Your task to perform on an android device: turn notification dots on Image 0: 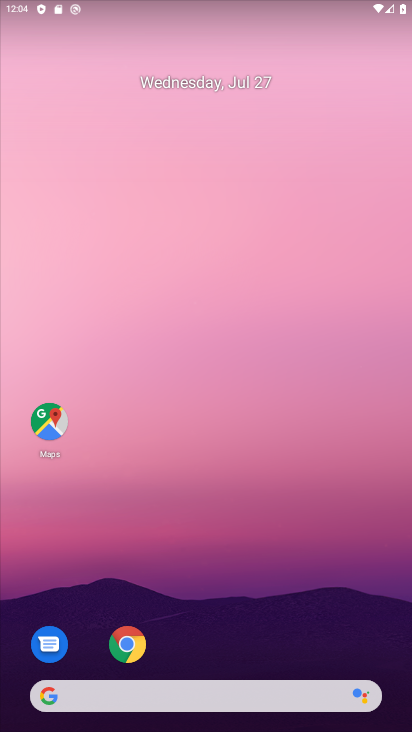
Step 0: press home button
Your task to perform on an android device: turn notification dots on Image 1: 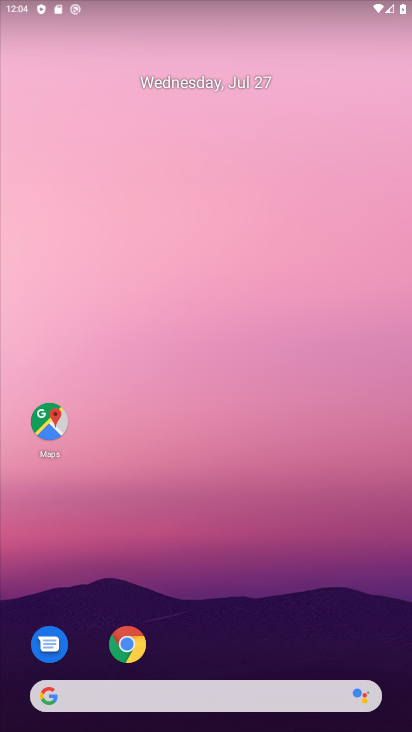
Step 1: drag from (181, 520) to (195, 36)
Your task to perform on an android device: turn notification dots on Image 2: 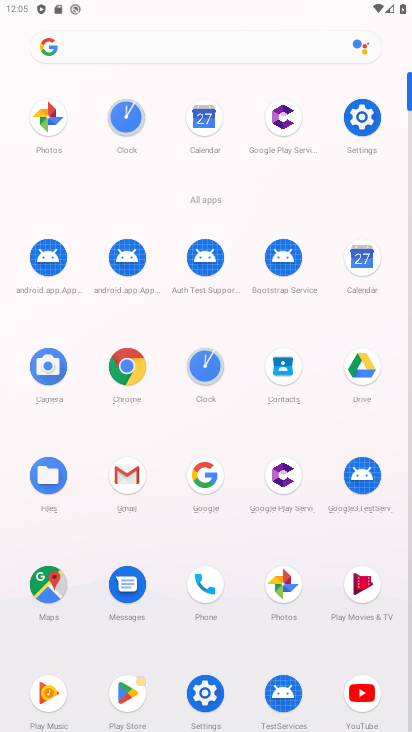
Step 2: click (207, 671)
Your task to perform on an android device: turn notification dots on Image 3: 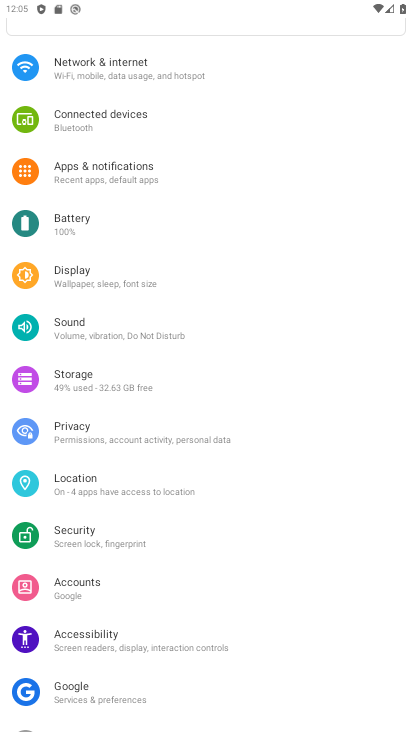
Step 3: drag from (247, 566) to (411, 124)
Your task to perform on an android device: turn notification dots on Image 4: 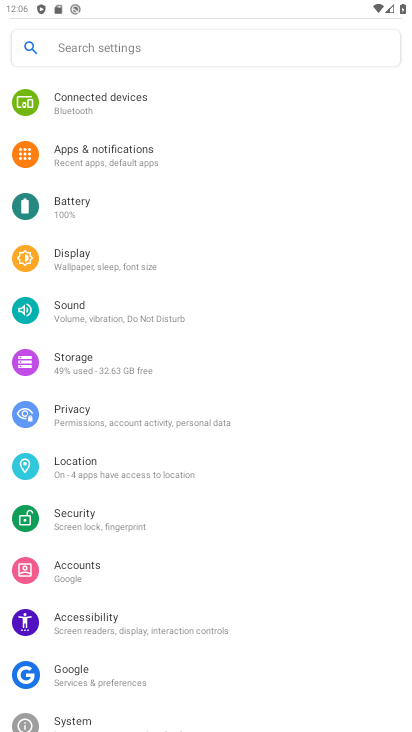
Step 4: click (112, 166)
Your task to perform on an android device: turn notification dots on Image 5: 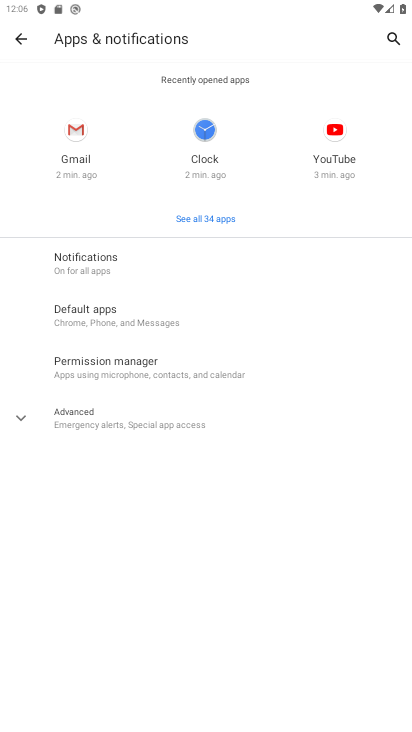
Step 5: click (105, 270)
Your task to perform on an android device: turn notification dots on Image 6: 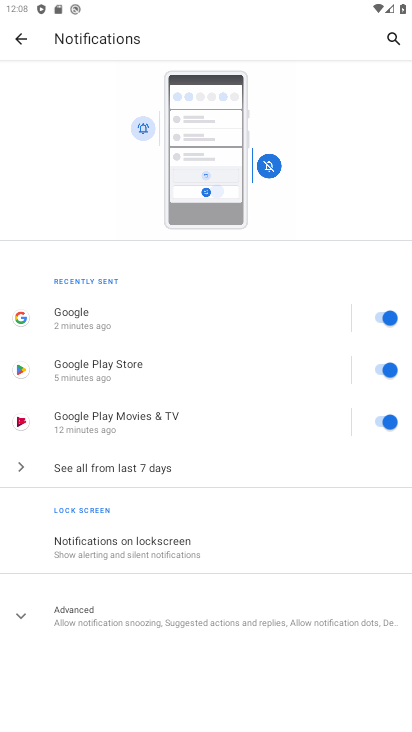
Step 6: click (134, 623)
Your task to perform on an android device: turn notification dots on Image 7: 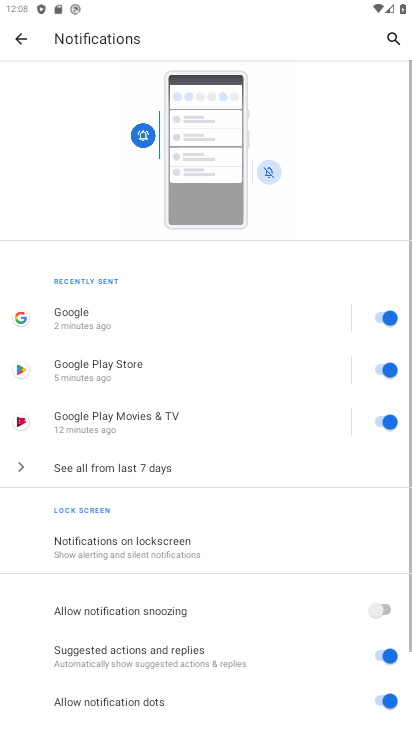
Step 7: task complete